Your task to perform on an android device: all mails in gmail Image 0: 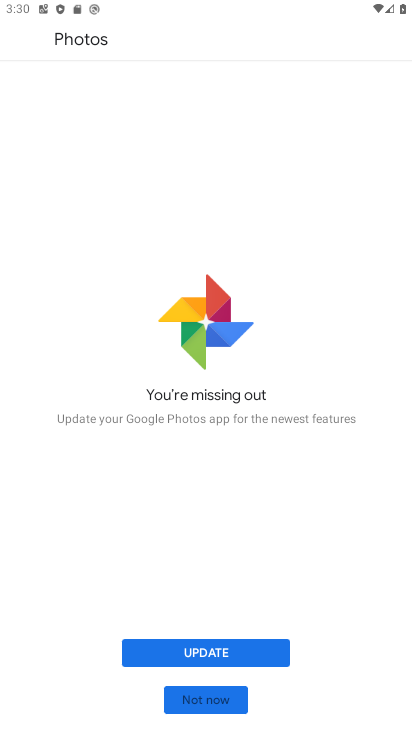
Step 0: press home button
Your task to perform on an android device: all mails in gmail Image 1: 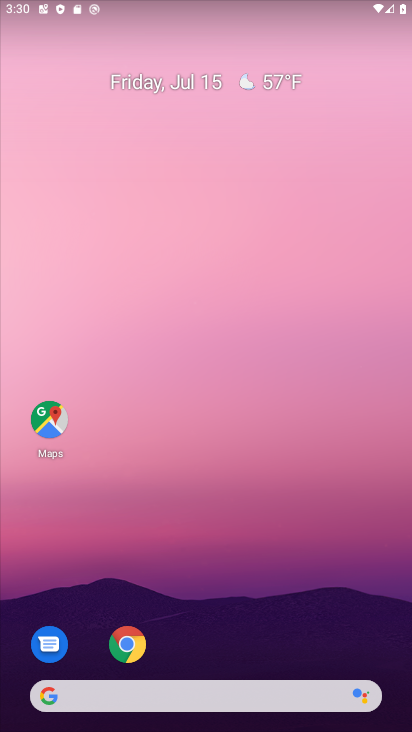
Step 1: drag from (327, 606) to (223, 64)
Your task to perform on an android device: all mails in gmail Image 2: 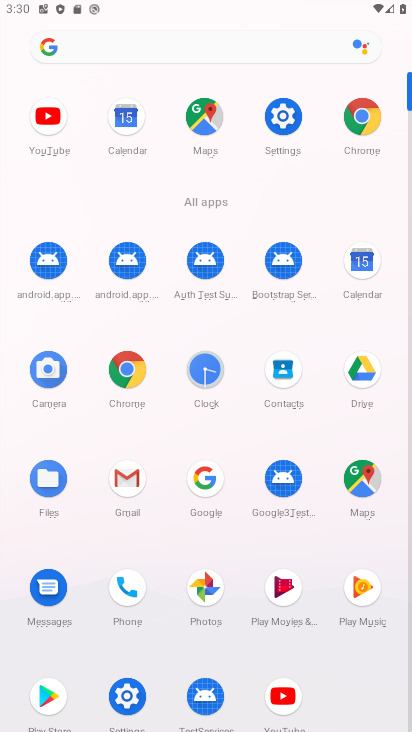
Step 2: click (116, 492)
Your task to perform on an android device: all mails in gmail Image 3: 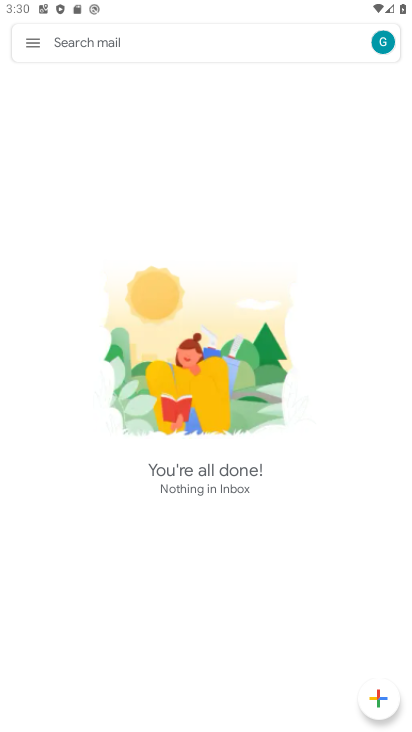
Step 3: click (33, 42)
Your task to perform on an android device: all mails in gmail Image 4: 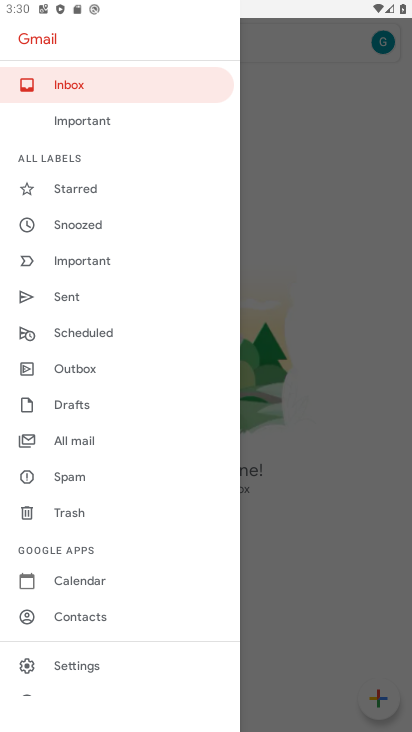
Step 4: click (99, 451)
Your task to perform on an android device: all mails in gmail Image 5: 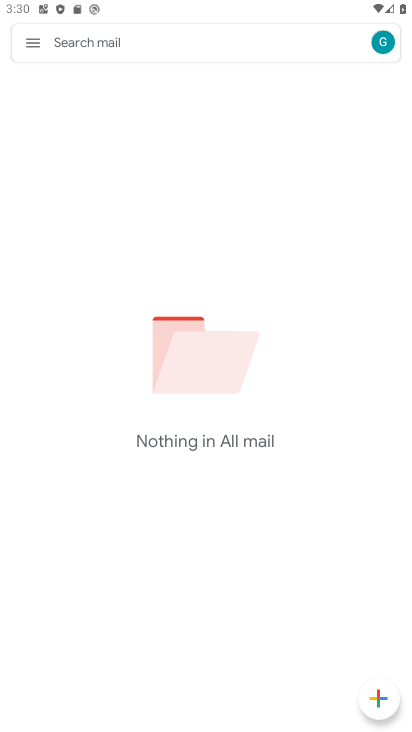
Step 5: task complete